Your task to perform on an android device: Go to privacy settings Image 0: 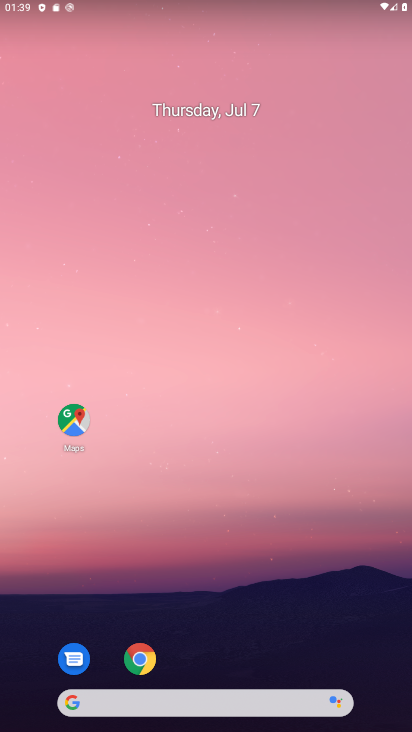
Step 0: drag from (209, 643) to (191, 211)
Your task to perform on an android device: Go to privacy settings Image 1: 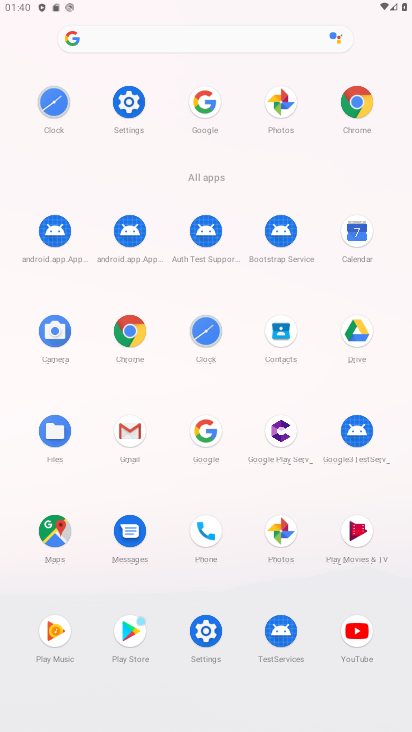
Step 1: click (362, 103)
Your task to perform on an android device: Go to privacy settings Image 2: 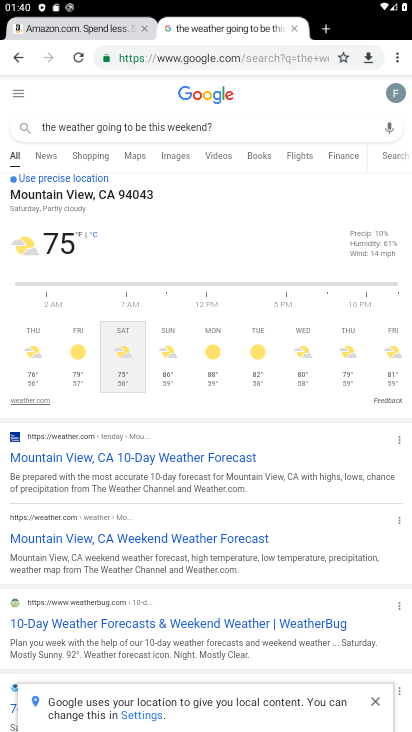
Step 2: click (392, 57)
Your task to perform on an android device: Go to privacy settings Image 3: 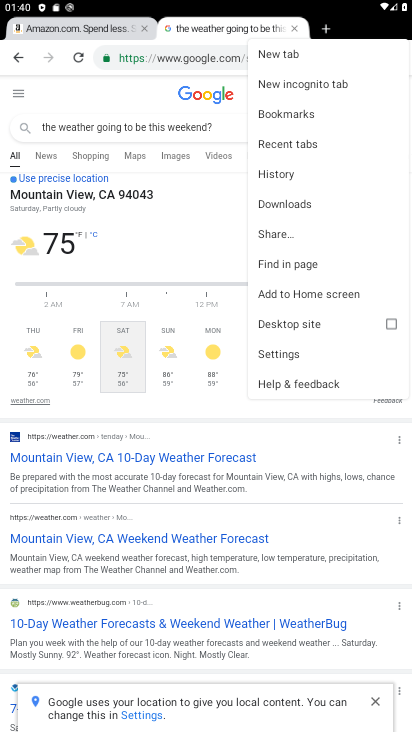
Step 3: click (279, 353)
Your task to perform on an android device: Go to privacy settings Image 4: 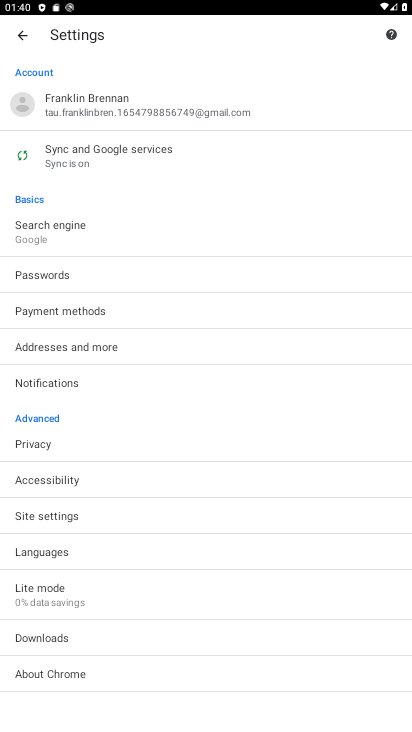
Step 4: click (43, 437)
Your task to perform on an android device: Go to privacy settings Image 5: 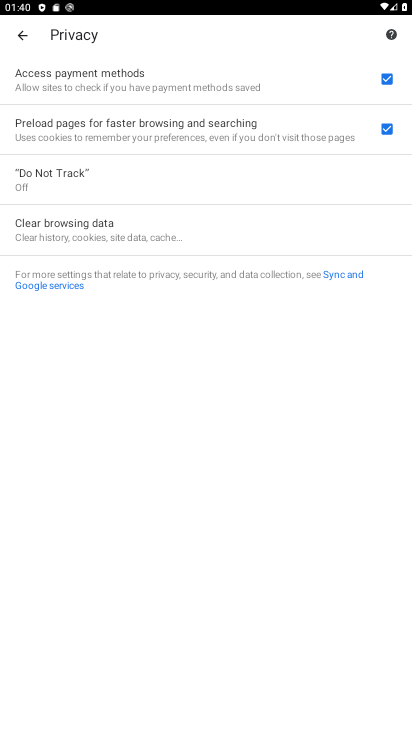
Step 5: task complete